Your task to perform on an android device: turn on improve location accuracy Image 0: 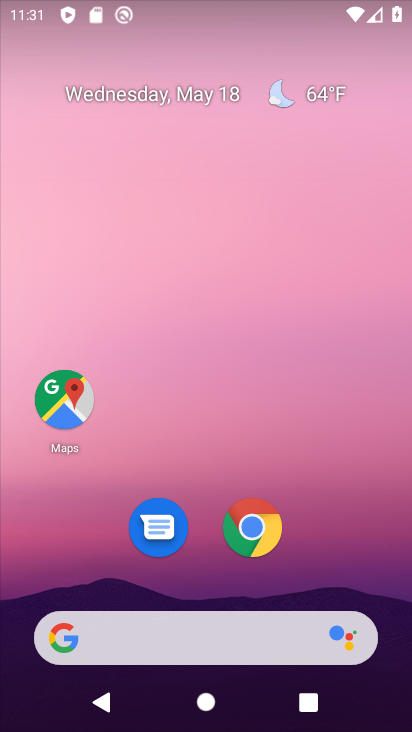
Step 0: drag from (173, 543) to (227, 108)
Your task to perform on an android device: turn on improve location accuracy Image 1: 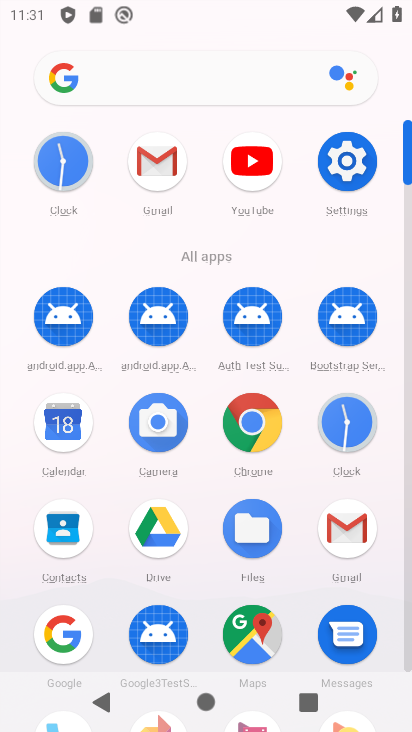
Step 1: click (348, 166)
Your task to perform on an android device: turn on improve location accuracy Image 2: 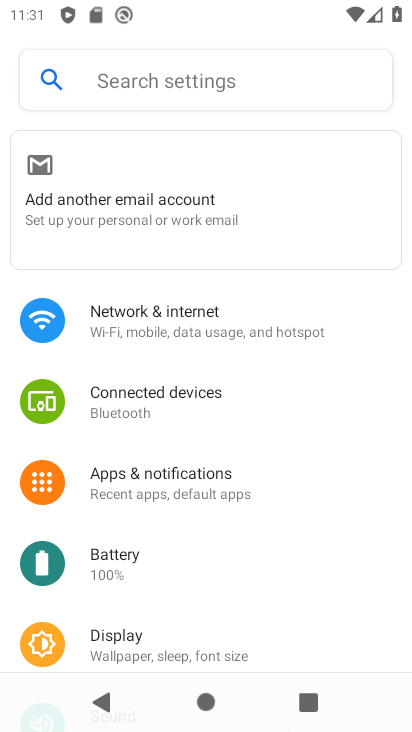
Step 2: drag from (125, 620) to (216, 219)
Your task to perform on an android device: turn on improve location accuracy Image 3: 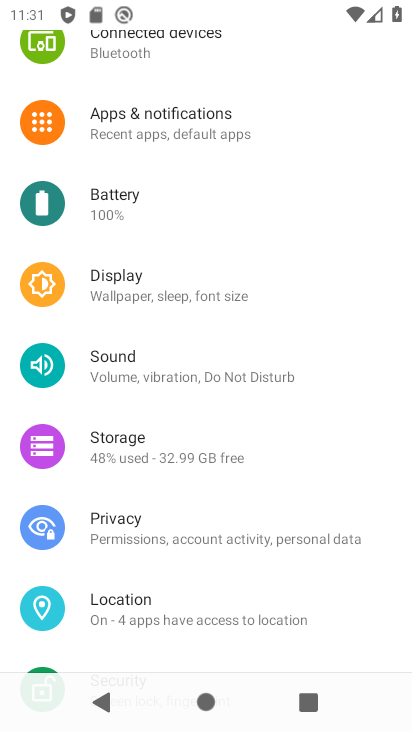
Step 3: click (128, 604)
Your task to perform on an android device: turn on improve location accuracy Image 4: 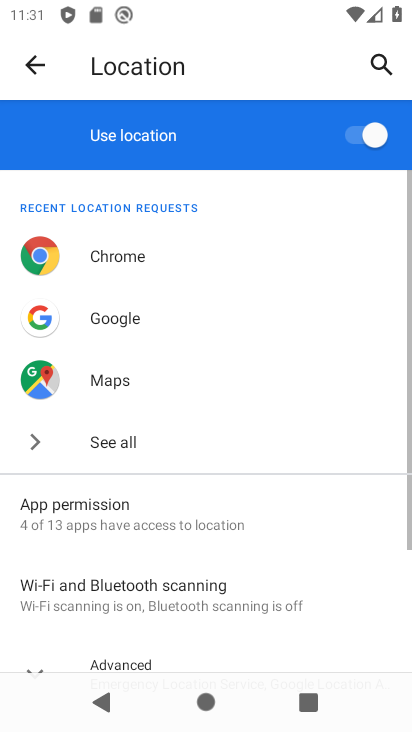
Step 4: drag from (141, 585) to (222, 175)
Your task to perform on an android device: turn on improve location accuracy Image 5: 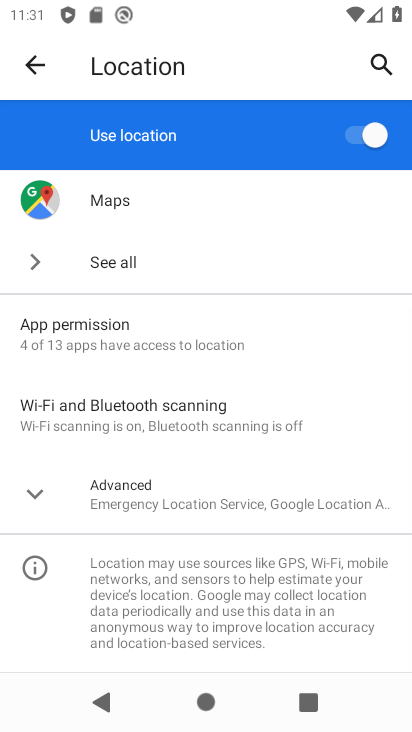
Step 5: click (149, 481)
Your task to perform on an android device: turn on improve location accuracy Image 6: 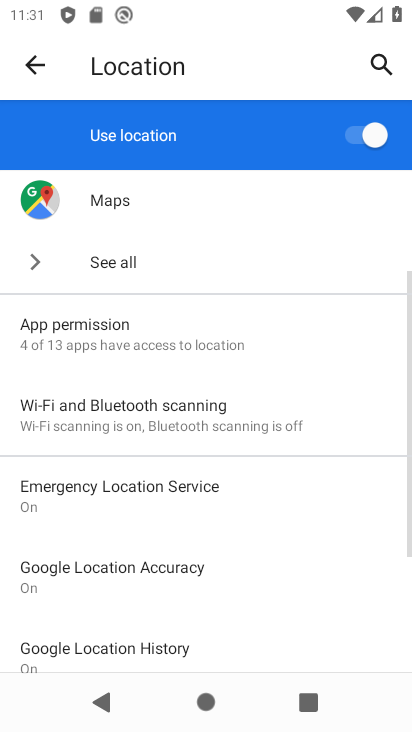
Step 6: click (92, 584)
Your task to perform on an android device: turn on improve location accuracy Image 7: 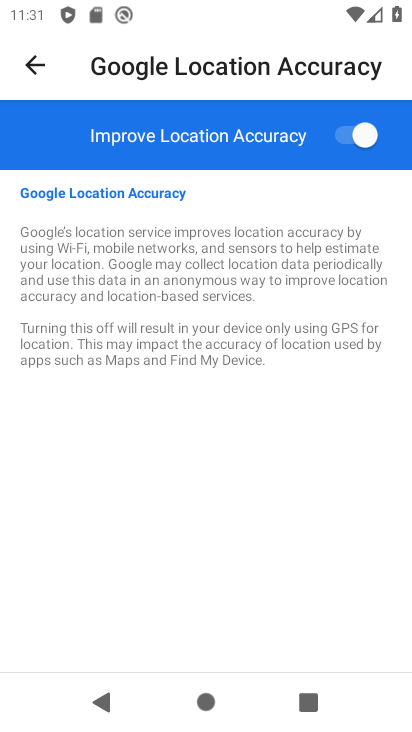
Step 7: task complete